Your task to perform on an android device: Open ESPN.com Image 0: 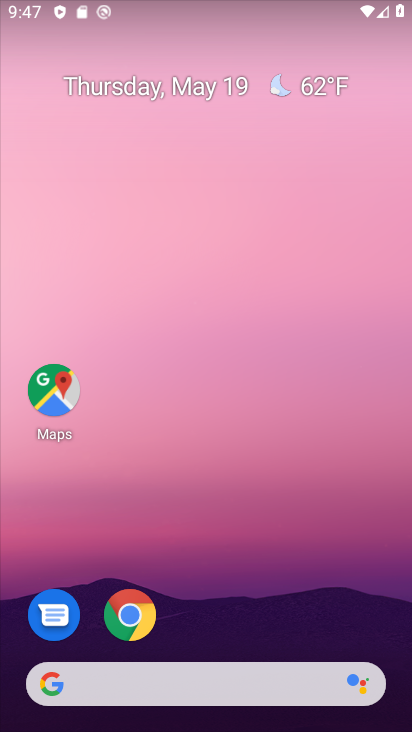
Step 0: click (142, 612)
Your task to perform on an android device: Open ESPN.com Image 1: 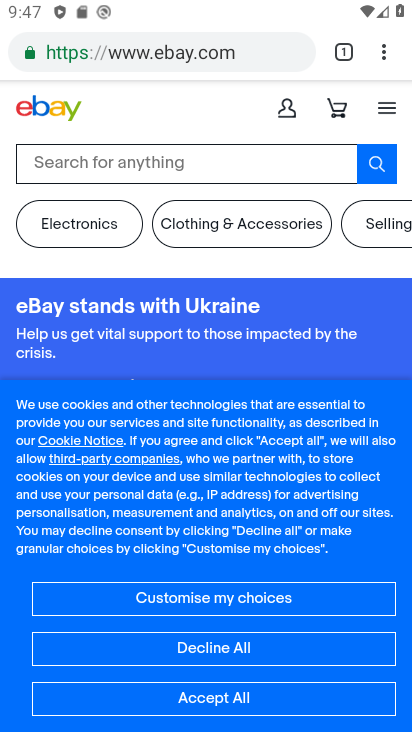
Step 1: click (338, 46)
Your task to perform on an android device: Open ESPN.com Image 2: 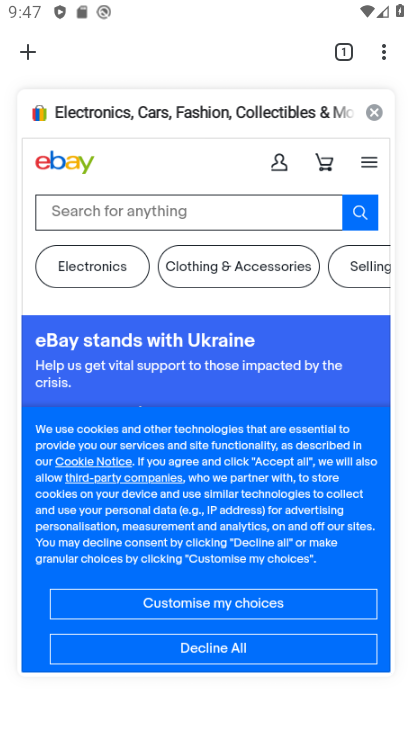
Step 2: click (25, 51)
Your task to perform on an android device: Open ESPN.com Image 3: 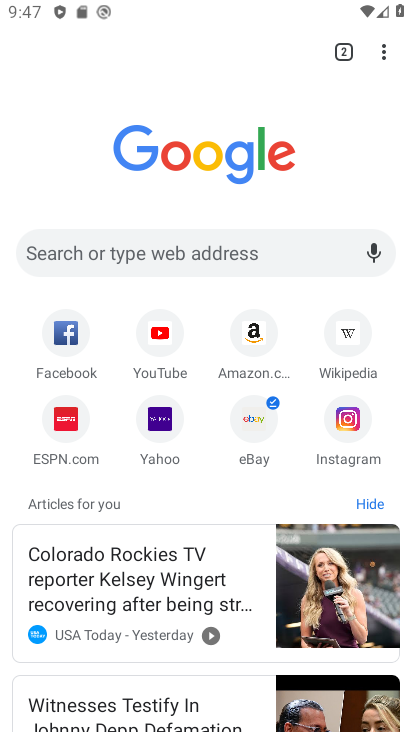
Step 3: click (60, 426)
Your task to perform on an android device: Open ESPN.com Image 4: 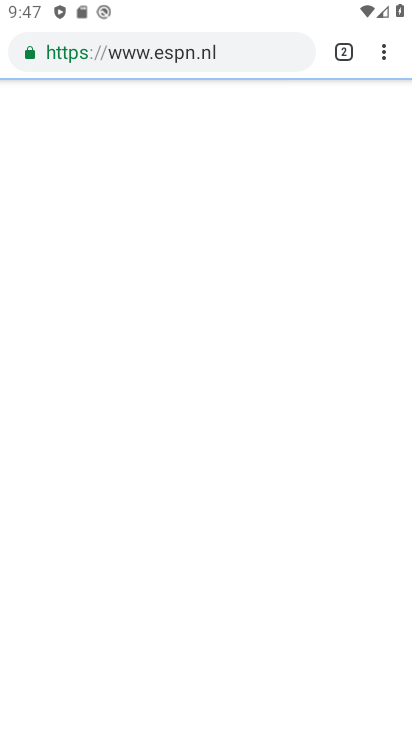
Step 4: task complete